Your task to perform on an android device: Go to sound settings Image 0: 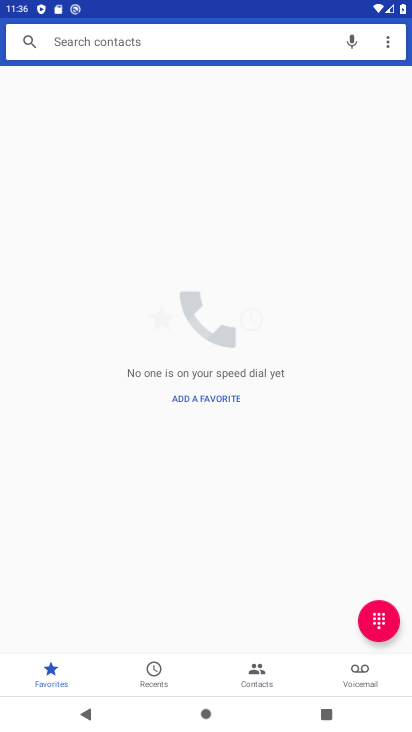
Step 0: press home button
Your task to perform on an android device: Go to sound settings Image 1: 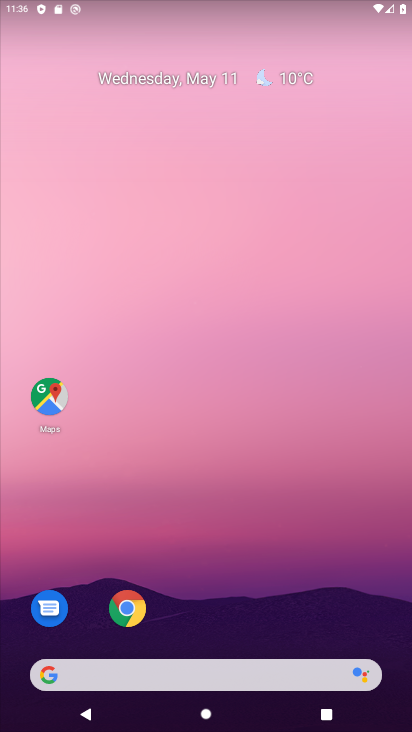
Step 1: drag from (290, 582) to (242, 56)
Your task to perform on an android device: Go to sound settings Image 2: 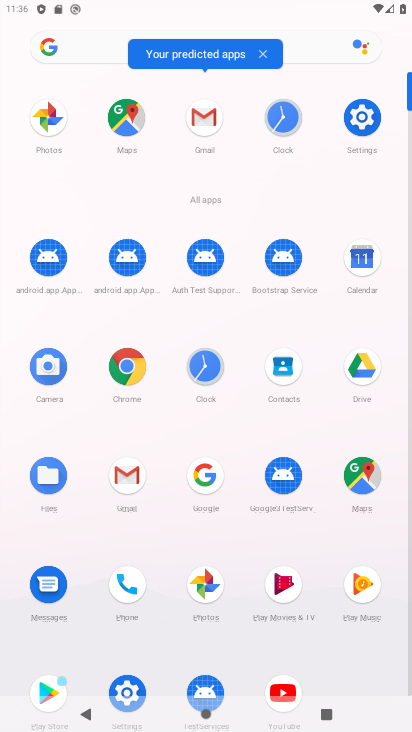
Step 2: click (362, 117)
Your task to perform on an android device: Go to sound settings Image 3: 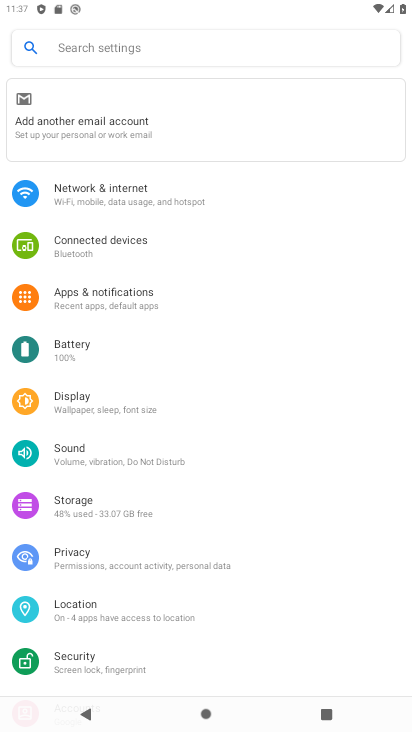
Step 3: click (73, 452)
Your task to perform on an android device: Go to sound settings Image 4: 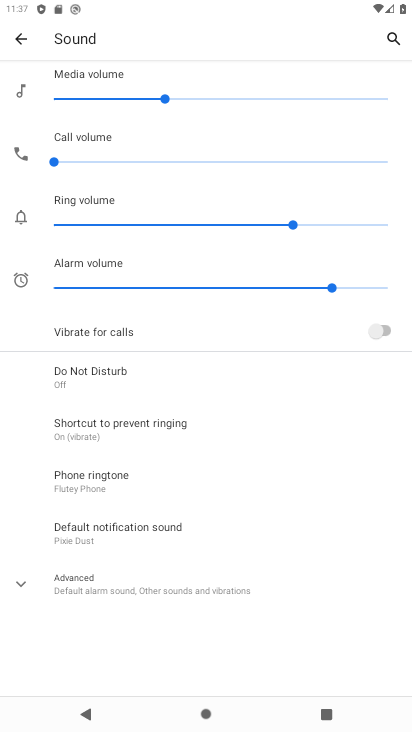
Step 4: task complete